Your task to perform on an android device: Open Maps and search for coffee Image 0: 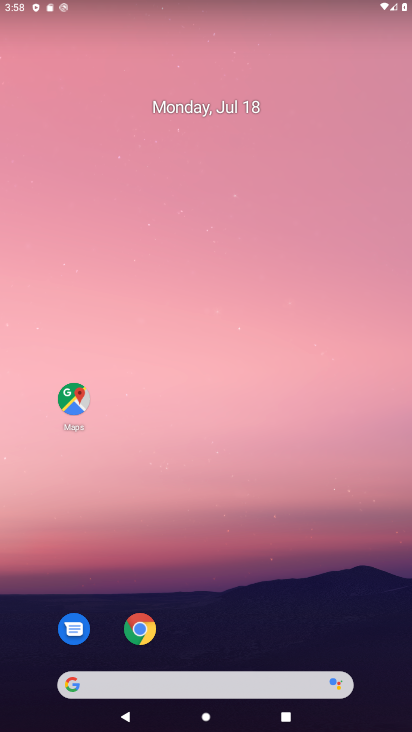
Step 0: click (71, 390)
Your task to perform on an android device: Open Maps and search for coffee Image 1: 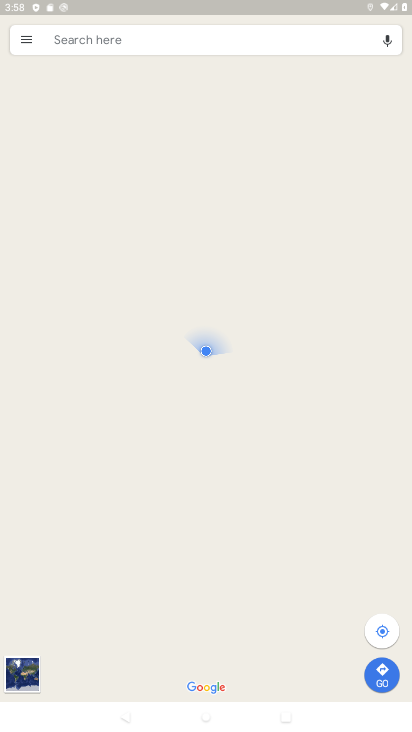
Step 1: click (95, 30)
Your task to perform on an android device: Open Maps and search for coffee Image 2: 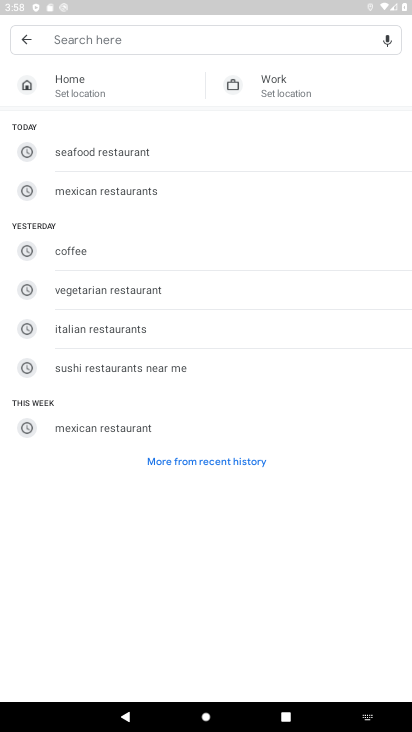
Step 2: click (73, 246)
Your task to perform on an android device: Open Maps and search for coffee Image 3: 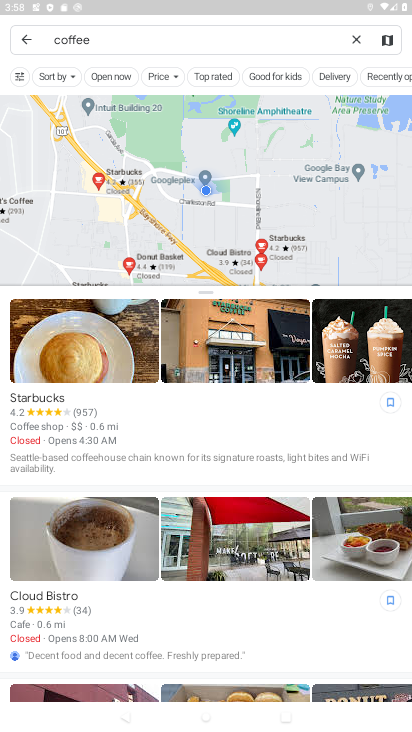
Step 3: task complete